Your task to perform on an android device: Show me productivity apps on the Play Store Image 0: 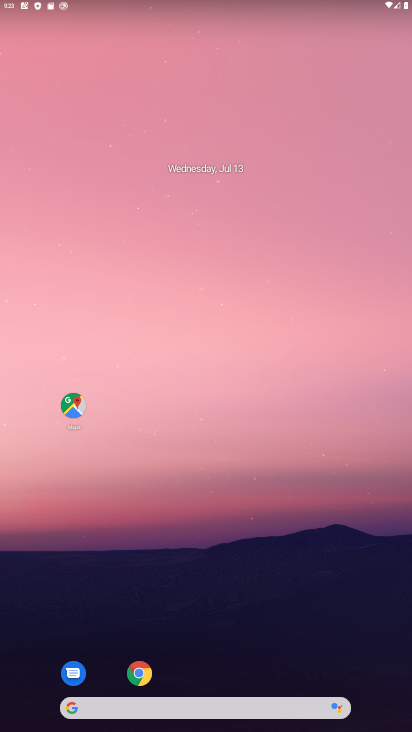
Step 0: drag from (210, 666) to (226, 298)
Your task to perform on an android device: Show me productivity apps on the Play Store Image 1: 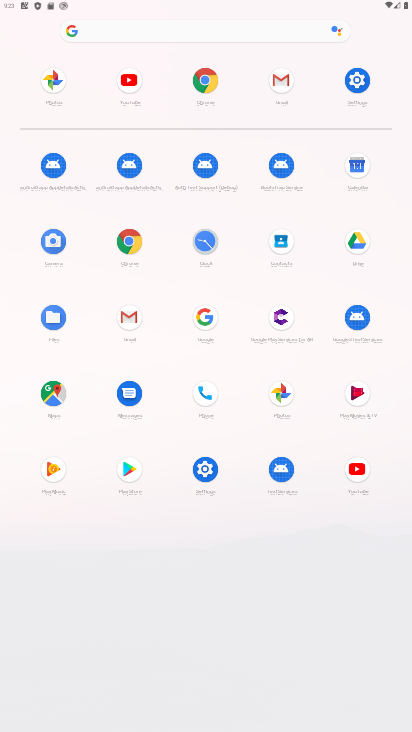
Step 1: click (126, 469)
Your task to perform on an android device: Show me productivity apps on the Play Store Image 2: 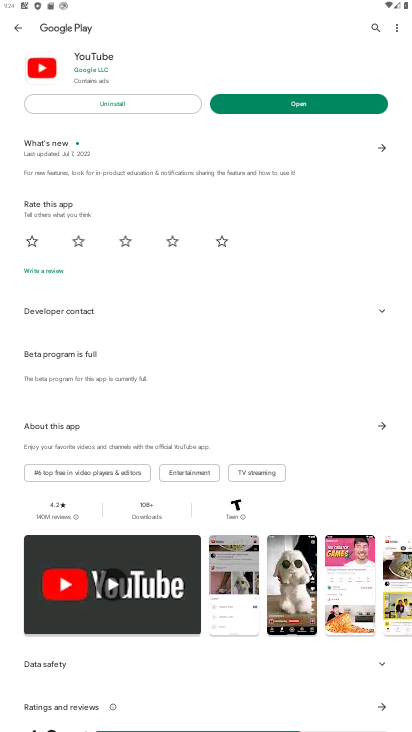
Step 2: click (8, 28)
Your task to perform on an android device: Show me productivity apps on the Play Store Image 3: 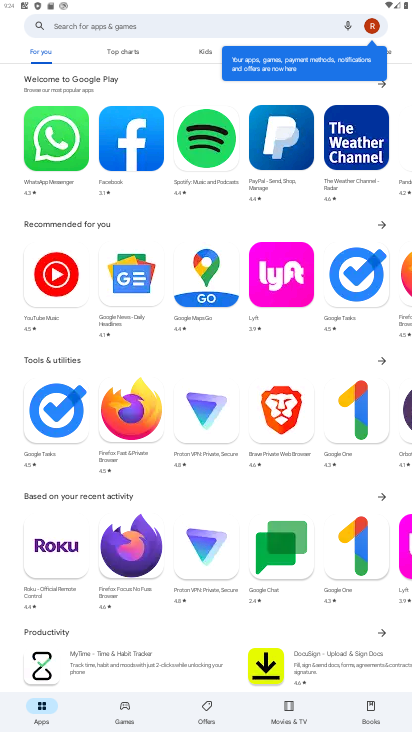
Step 3: click (205, 54)
Your task to perform on an android device: Show me productivity apps on the Play Store Image 4: 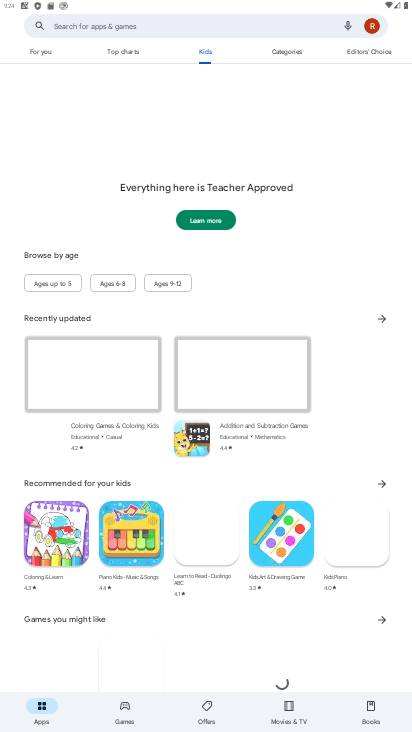
Step 4: click (270, 60)
Your task to perform on an android device: Show me productivity apps on the Play Store Image 5: 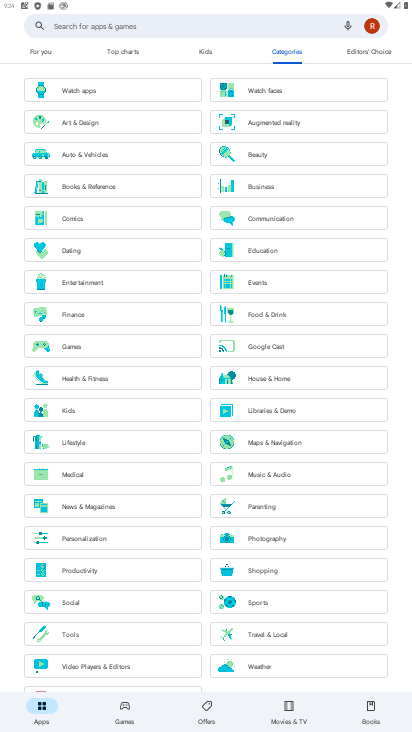
Step 5: click (70, 565)
Your task to perform on an android device: Show me productivity apps on the Play Store Image 6: 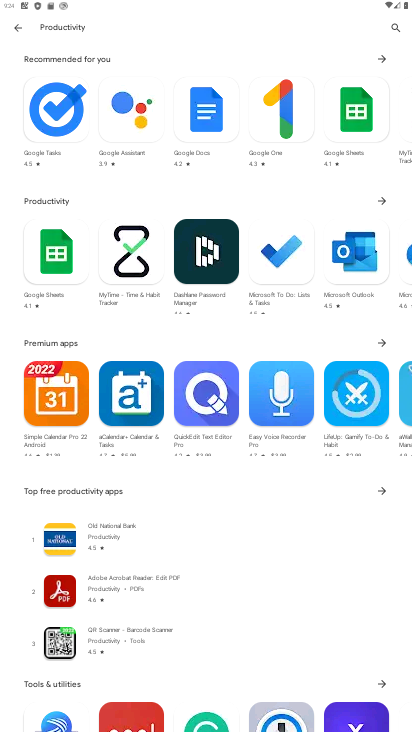
Step 6: task complete